Your task to perform on an android device: When is my next appointment? Image 0: 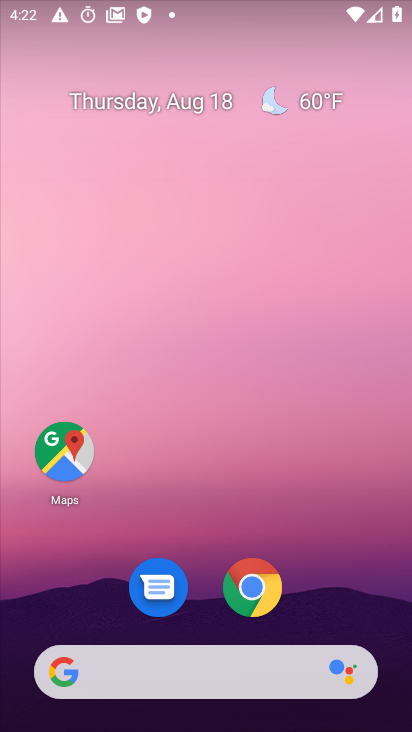
Step 0: drag from (296, 585) to (276, 14)
Your task to perform on an android device: When is my next appointment? Image 1: 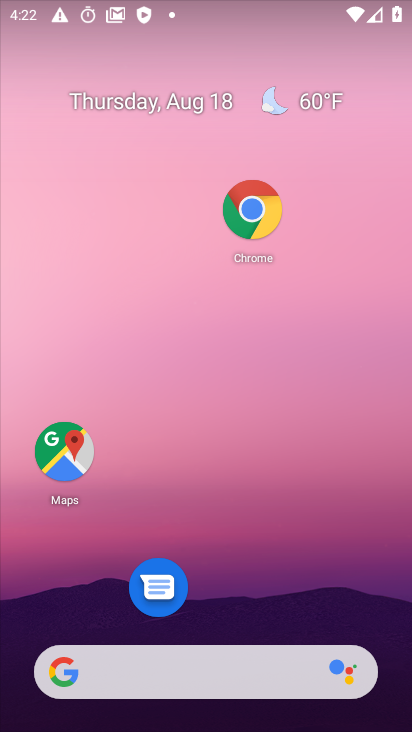
Step 1: drag from (319, 509) to (297, 62)
Your task to perform on an android device: When is my next appointment? Image 2: 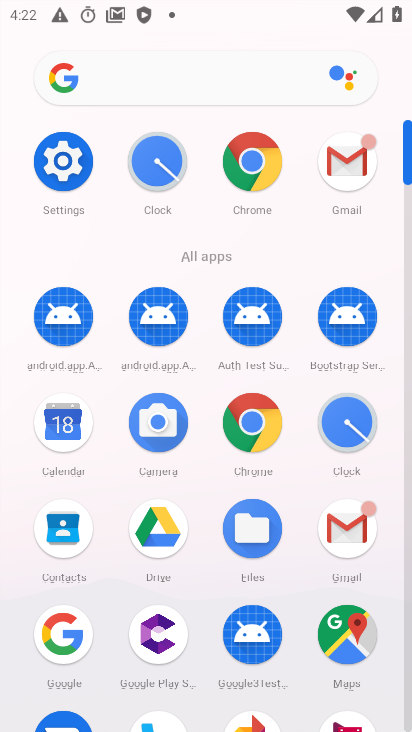
Step 2: click (54, 416)
Your task to perform on an android device: When is my next appointment? Image 3: 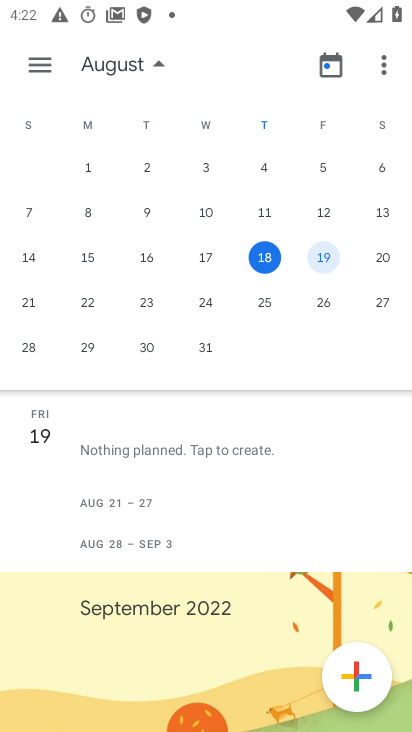
Step 3: task complete